Your task to perform on an android device: open device folders in google photos Image 0: 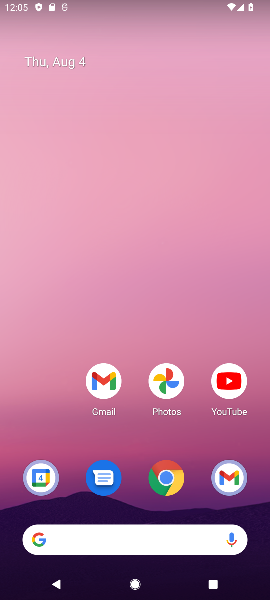
Step 0: click (172, 483)
Your task to perform on an android device: open device folders in google photos Image 1: 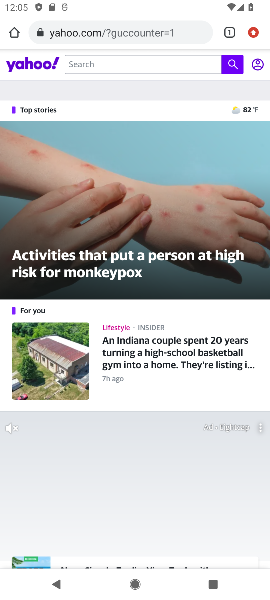
Step 1: task complete